Your task to perform on an android device: Go to ESPN.com Image 0: 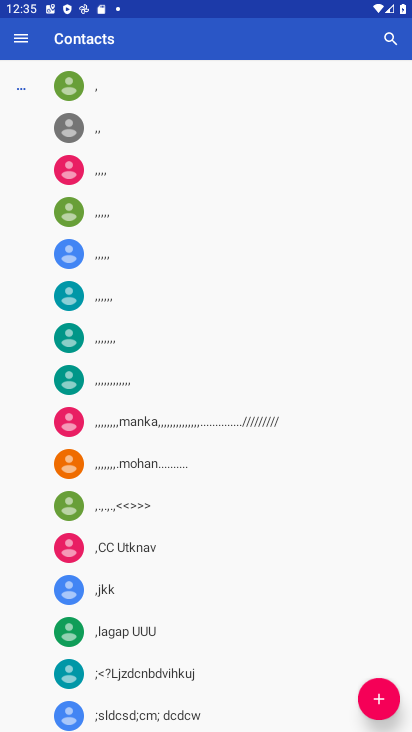
Step 0: press home button
Your task to perform on an android device: Go to ESPN.com Image 1: 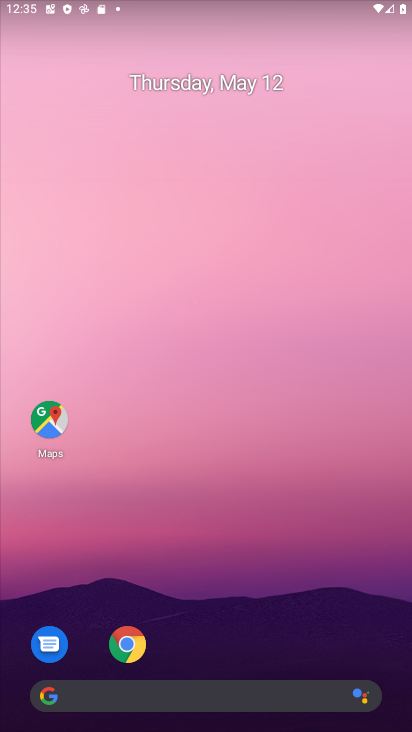
Step 1: click (133, 648)
Your task to perform on an android device: Go to ESPN.com Image 2: 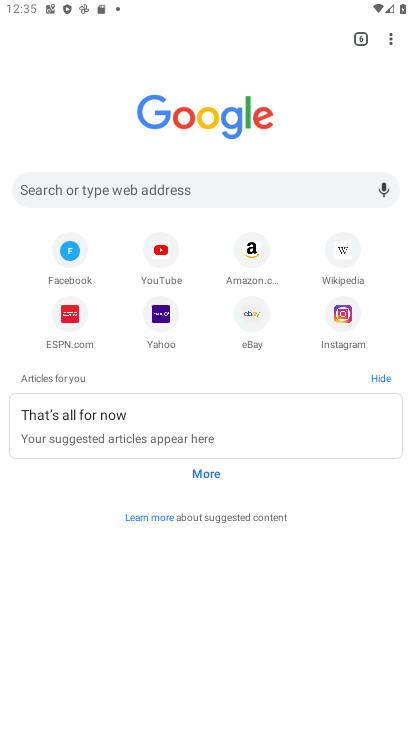
Step 2: click (61, 310)
Your task to perform on an android device: Go to ESPN.com Image 3: 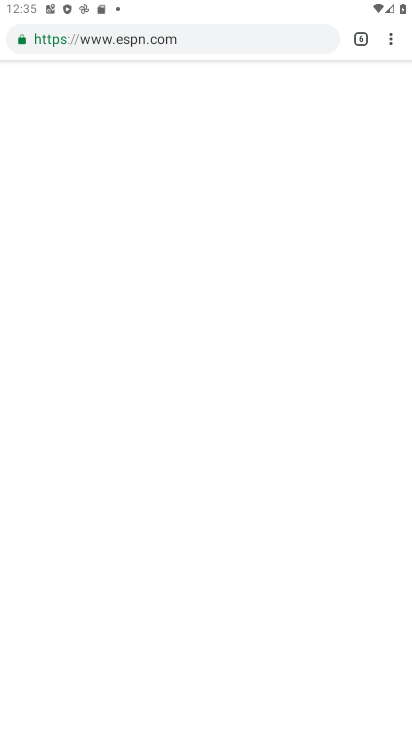
Step 3: task complete